Your task to perform on an android device: turn on location history Image 0: 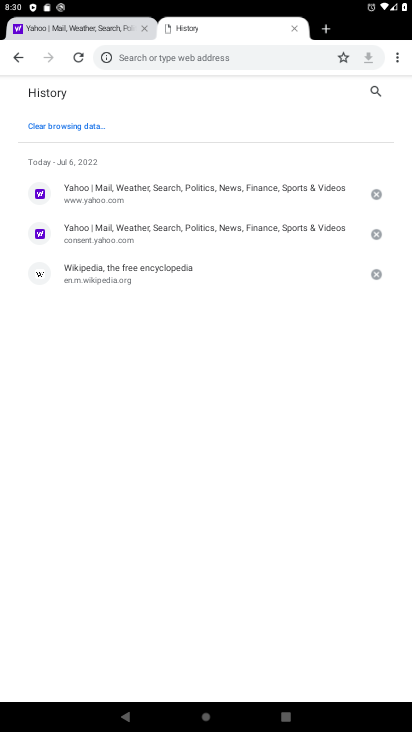
Step 0: press home button
Your task to perform on an android device: turn on location history Image 1: 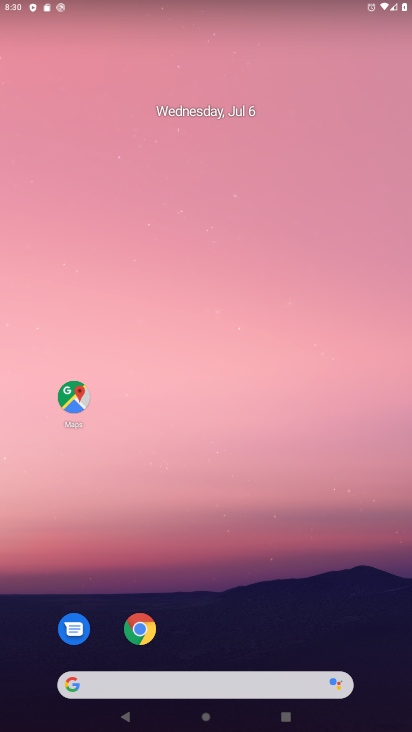
Step 1: drag from (5, 648) to (210, 187)
Your task to perform on an android device: turn on location history Image 2: 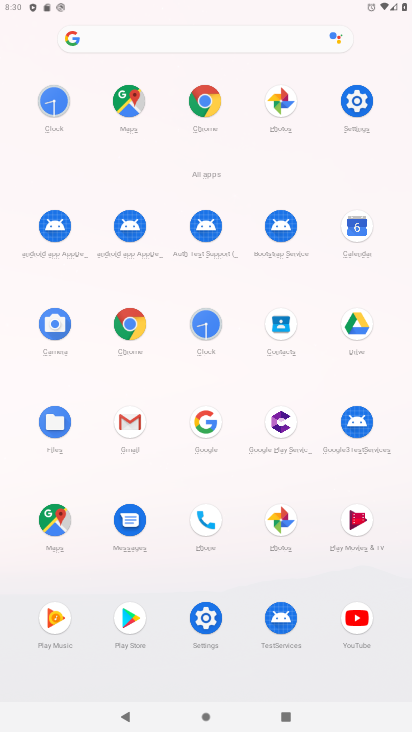
Step 2: click (350, 96)
Your task to perform on an android device: turn on location history Image 3: 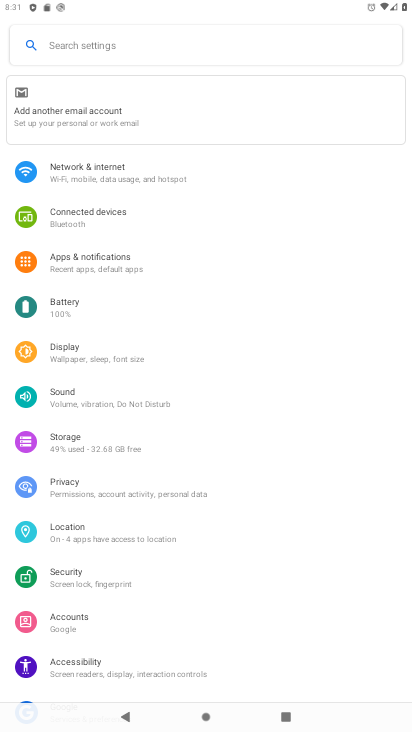
Step 3: click (101, 170)
Your task to perform on an android device: turn on location history Image 4: 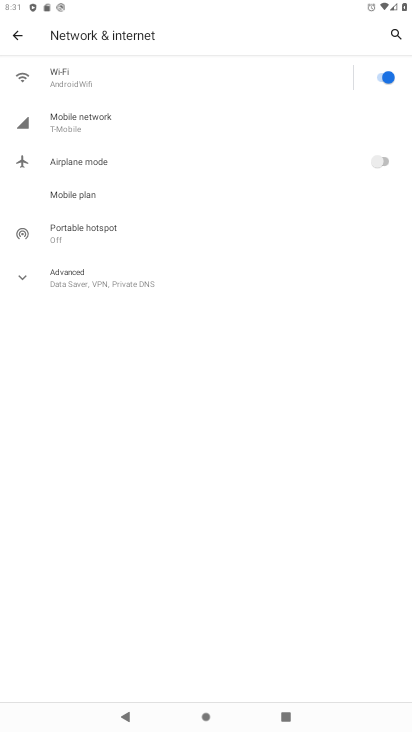
Step 4: press back button
Your task to perform on an android device: turn on location history Image 5: 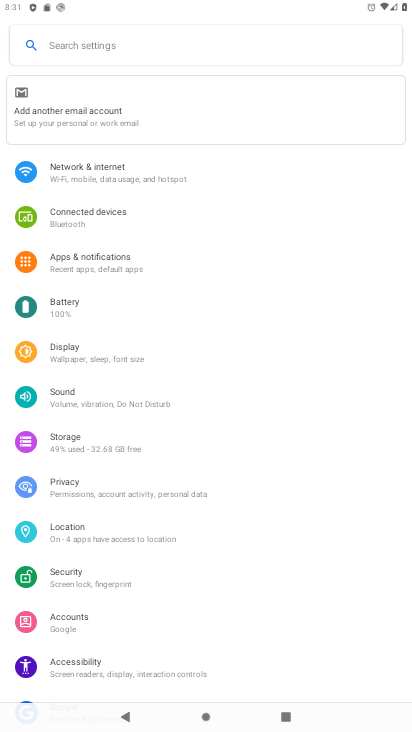
Step 5: click (98, 538)
Your task to perform on an android device: turn on location history Image 6: 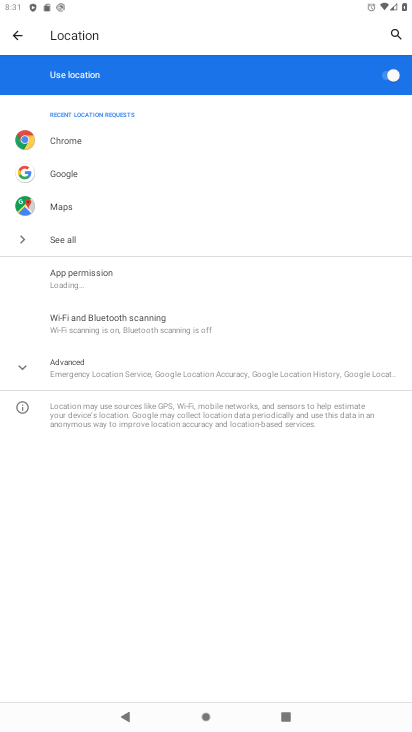
Step 6: click (140, 367)
Your task to perform on an android device: turn on location history Image 7: 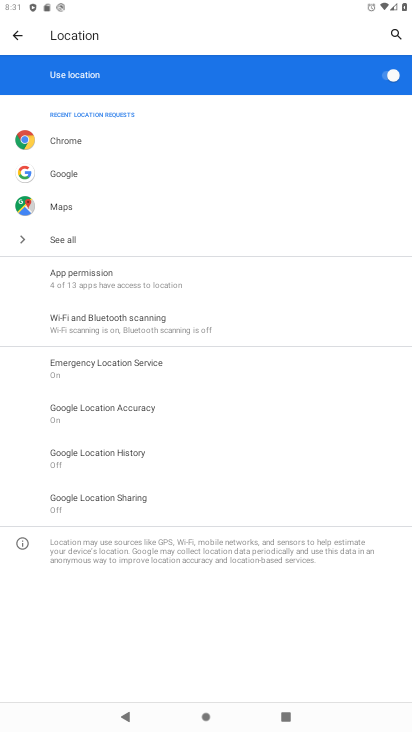
Step 7: click (130, 456)
Your task to perform on an android device: turn on location history Image 8: 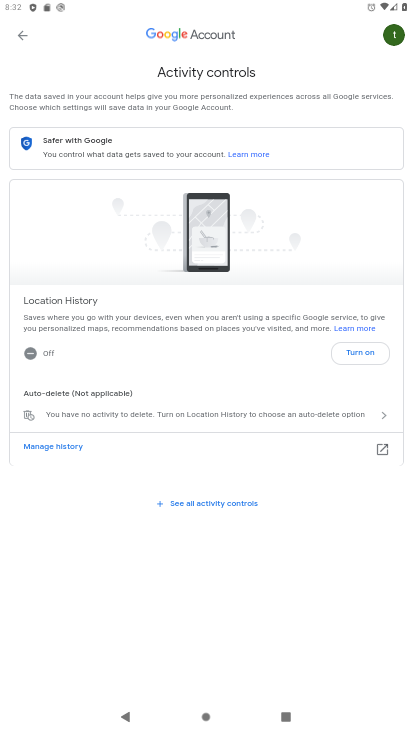
Step 8: task complete